Your task to perform on an android device: turn off picture-in-picture Image 0: 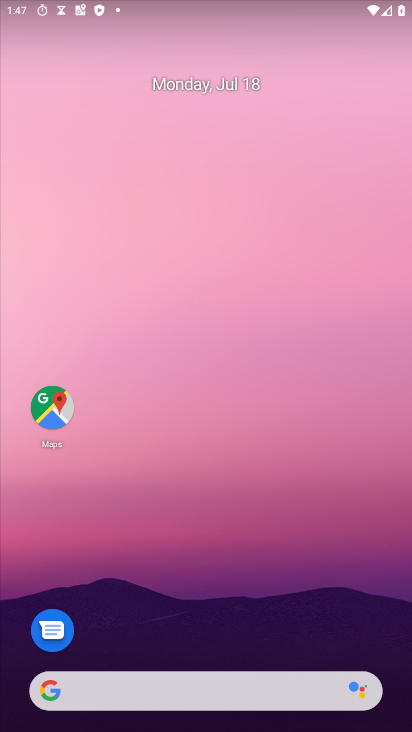
Step 0: drag from (175, 696) to (187, 39)
Your task to perform on an android device: turn off picture-in-picture Image 1: 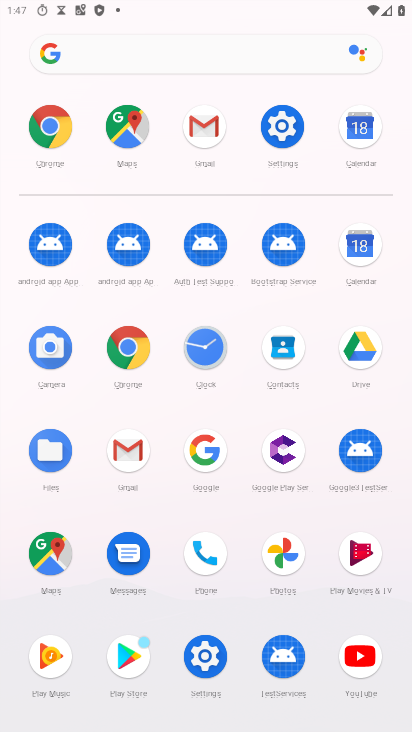
Step 1: click (283, 120)
Your task to perform on an android device: turn off picture-in-picture Image 2: 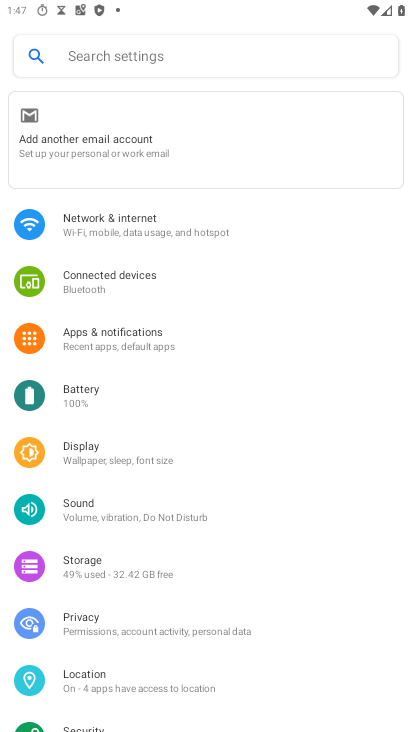
Step 2: click (145, 334)
Your task to perform on an android device: turn off picture-in-picture Image 3: 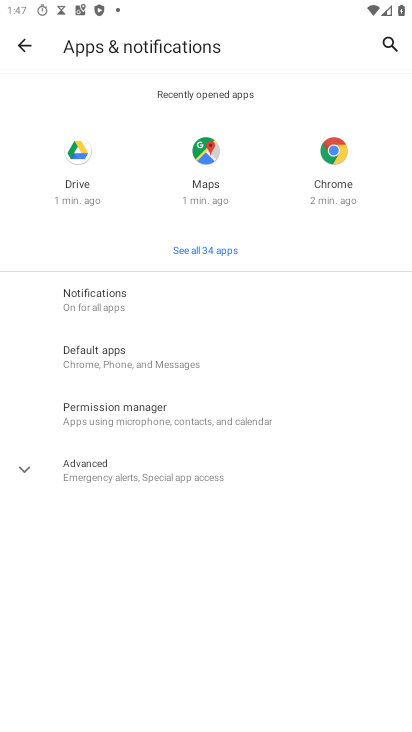
Step 3: click (116, 460)
Your task to perform on an android device: turn off picture-in-picture Image 4: 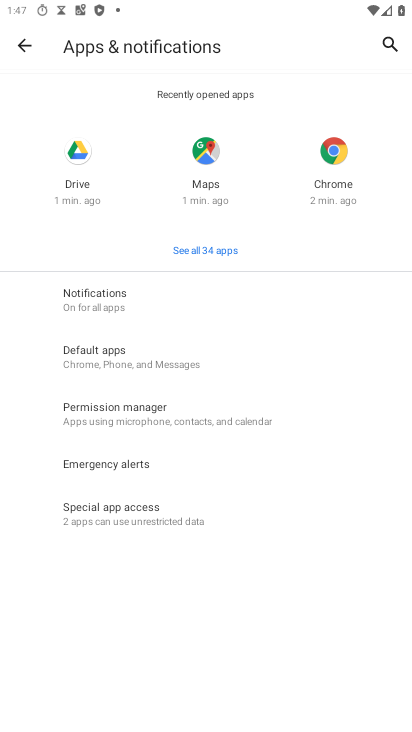
Step 4: click (121, 518)
Your task to perform on an android device: turn off picture-in-picture Image 5: 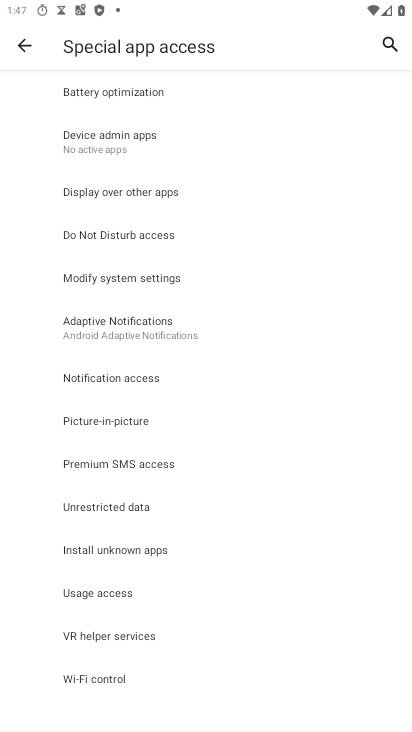
Step 5: click (121, 424)
Your task to perform on an android device: turn off picture-in-picture Image 6: 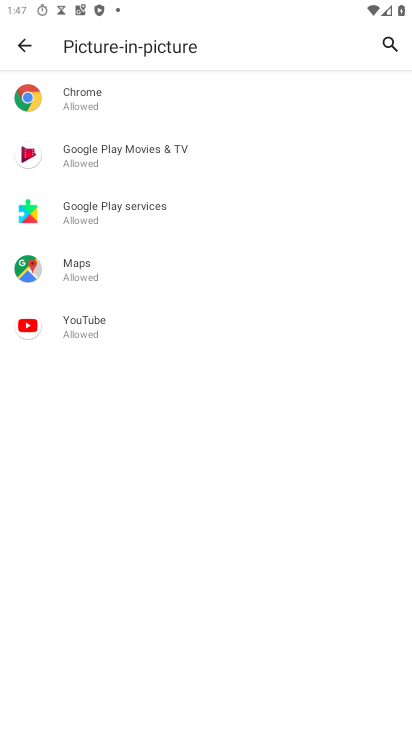
Step 6: click (110, 98)
Your task to perform on an android device: turn off picture-in-picture Image 7: 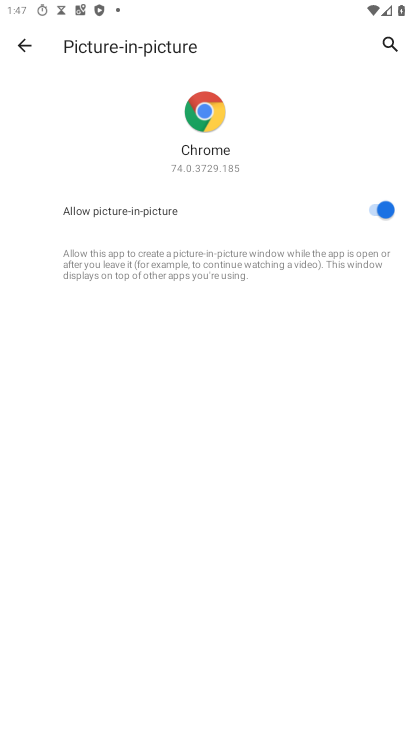
Step 7: click (378, 206)
Your task to perform on an android device: turn off picture-in-picture Image 8: 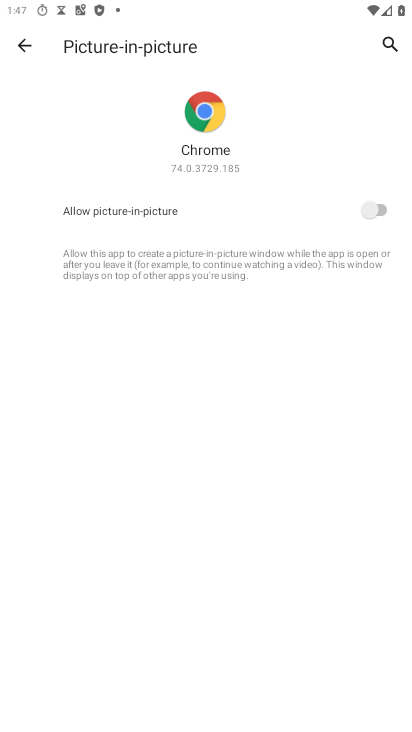
Step 8: press back button
Your task to perform on an android device: turn off picture-in-picture Image 9: 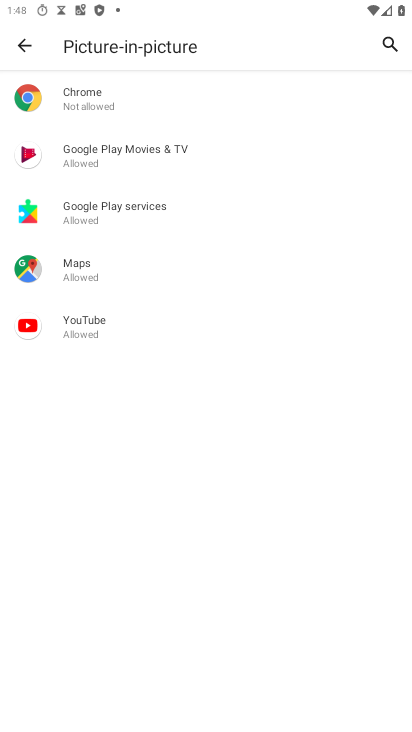
Step 9: click (213, 159)
Your task to perform on an android device: turn off picture-in-picture Image 10: 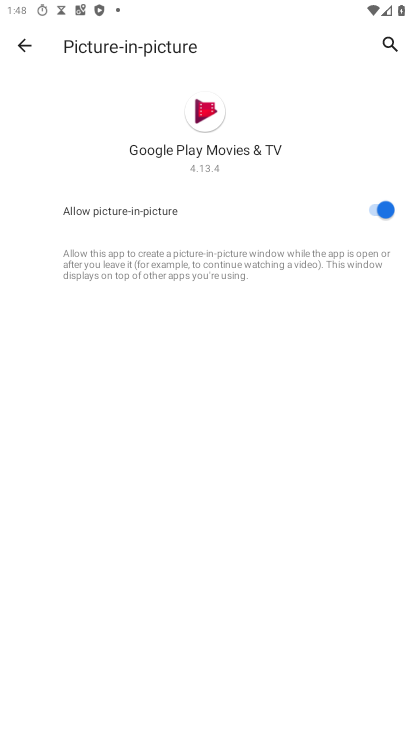
Step 10: click (383, 204)
Your task to perform on an android device: turn off picture-in-picture Image 11: 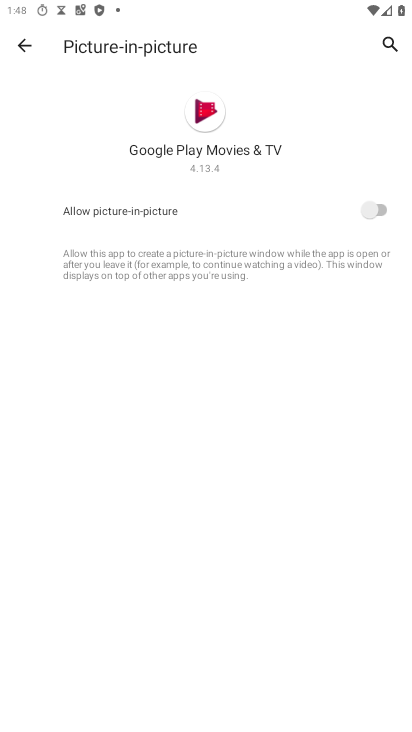
Step 11: press back button
Your task to perform on an android device: turn off picture-in-picture Image 12: 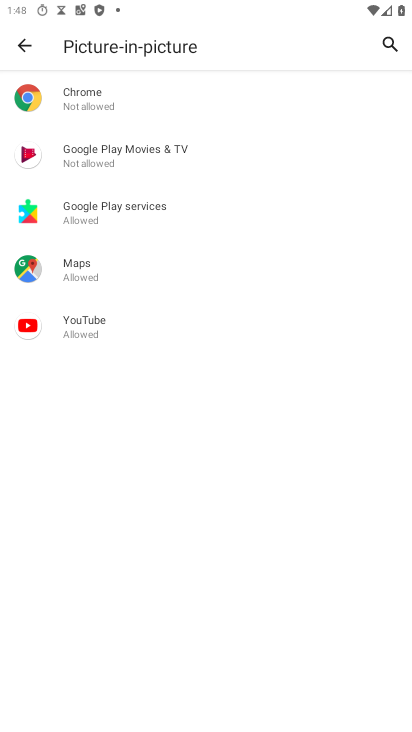
Step 12: click (121, 220)
Your task to perform on an android device: turn off picture-in-picture Image 13: 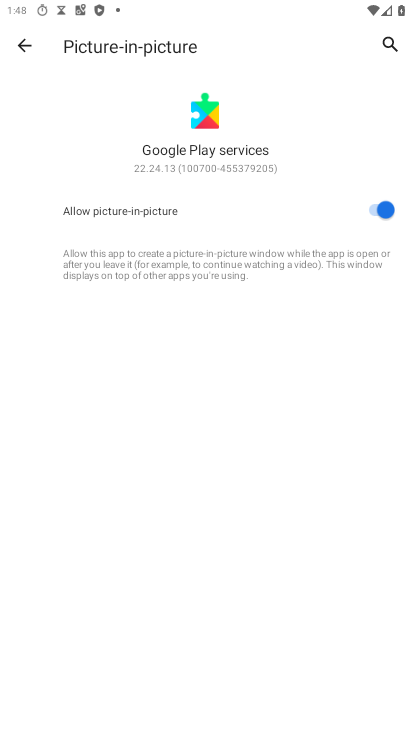
Step 13: click (369, 205)
Your task to perform on an android device: turn off picture-in-picture Image 14: 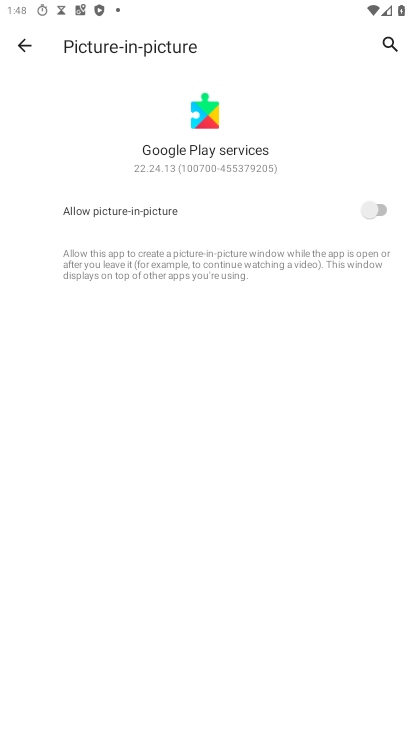
Step 14: press back button
Your task to perform on an android device: turn off picture-in-picture Image 15: 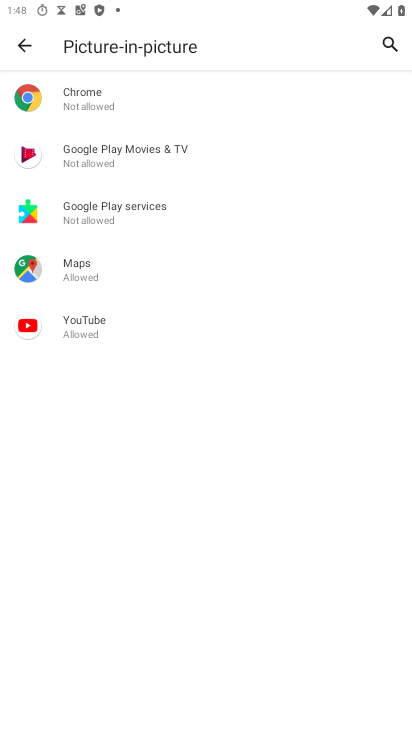
Step 15: click (133, 268)
Your task to perform on an android device: turn off picture-in-picture Image 16: 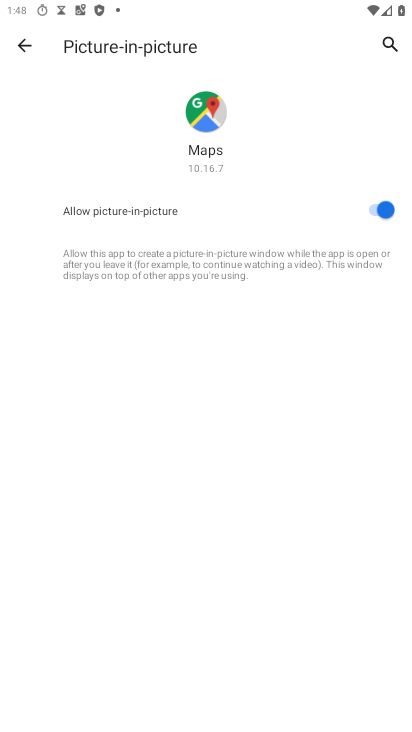
Step 16: click (377, 217)
Your task to perform on an android device: turn off picture-in-picture Image 17: 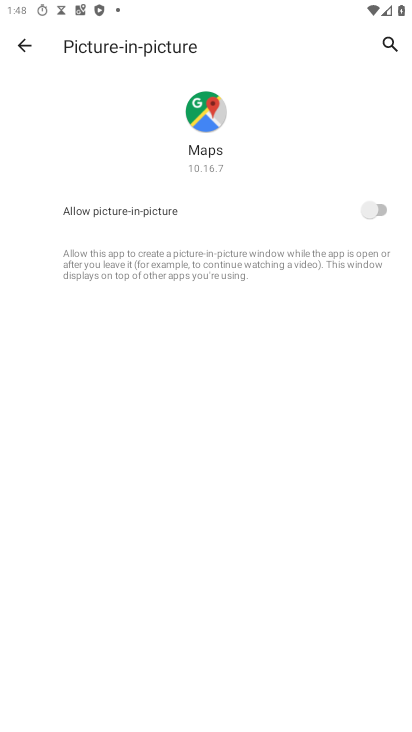
Step 17: press back button
Your task to perform on an android device: turn off picture-in-picture Image 18: 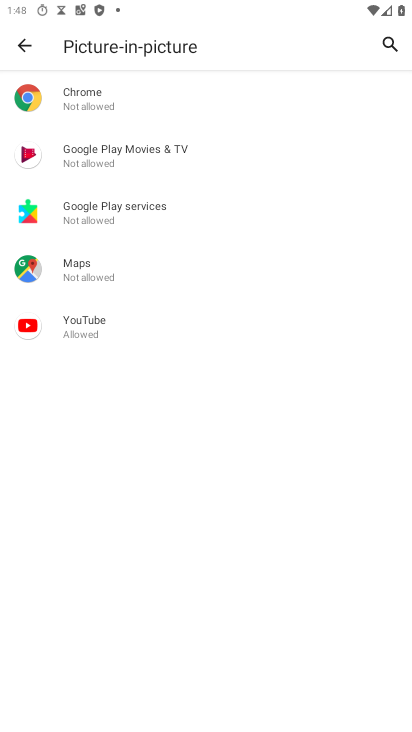
Step 18: click (97, 326)
Your task to perform on an android device: turn off picture-in-picture Image 19: 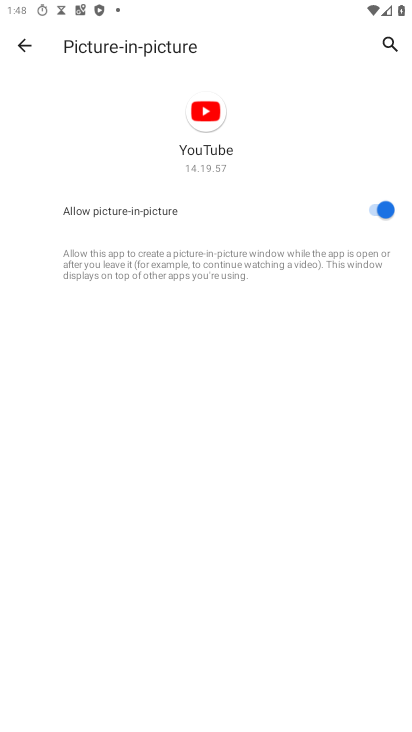
Step 19: click (385, 206)
Your task to perform on an android device: turn off picture-in-picture Image 20: 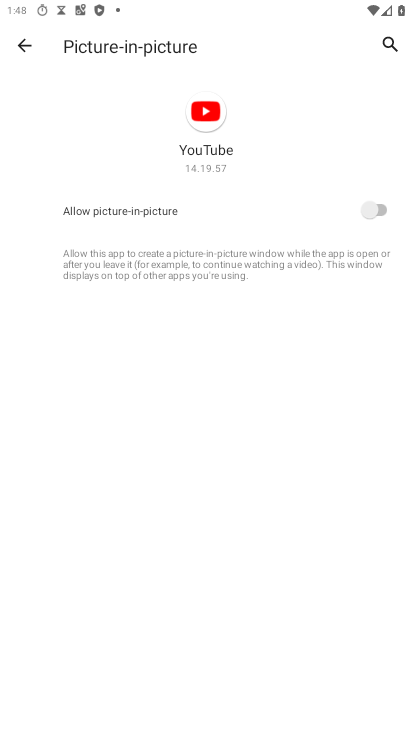
Step 20: task complete